Your task to perform on an android device: turn on sleep mode Image 0: 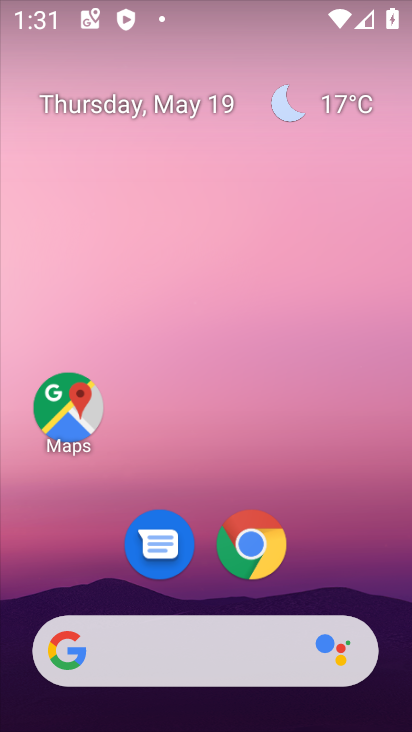
Step 0: drag from (187, 607) to (219, 153)
Your task to perform on an android device: turn on sleep mode Image 1: 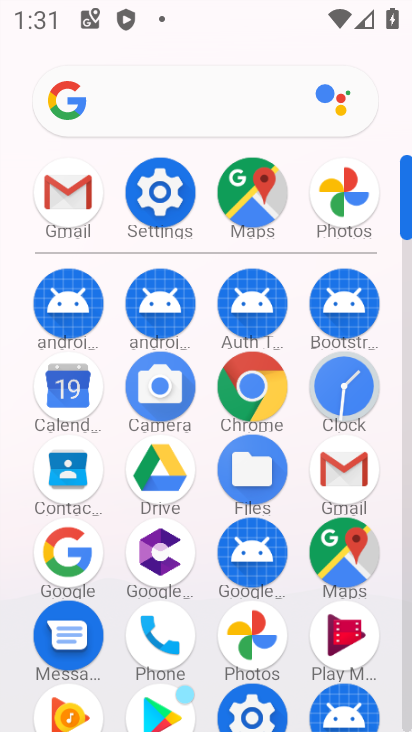
Step 1: click (158, 191)
Your task to perform on an android device: turn on sleep mode Image 2: 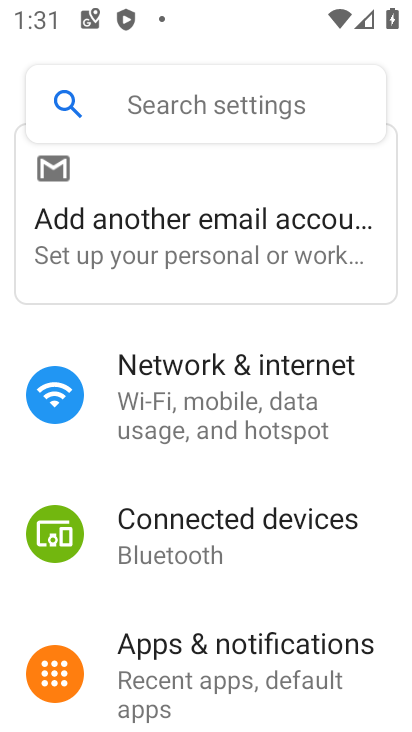
Step 2: task complete